Your task to perform on an android device: turn pop-ups off in chrome Image 0: 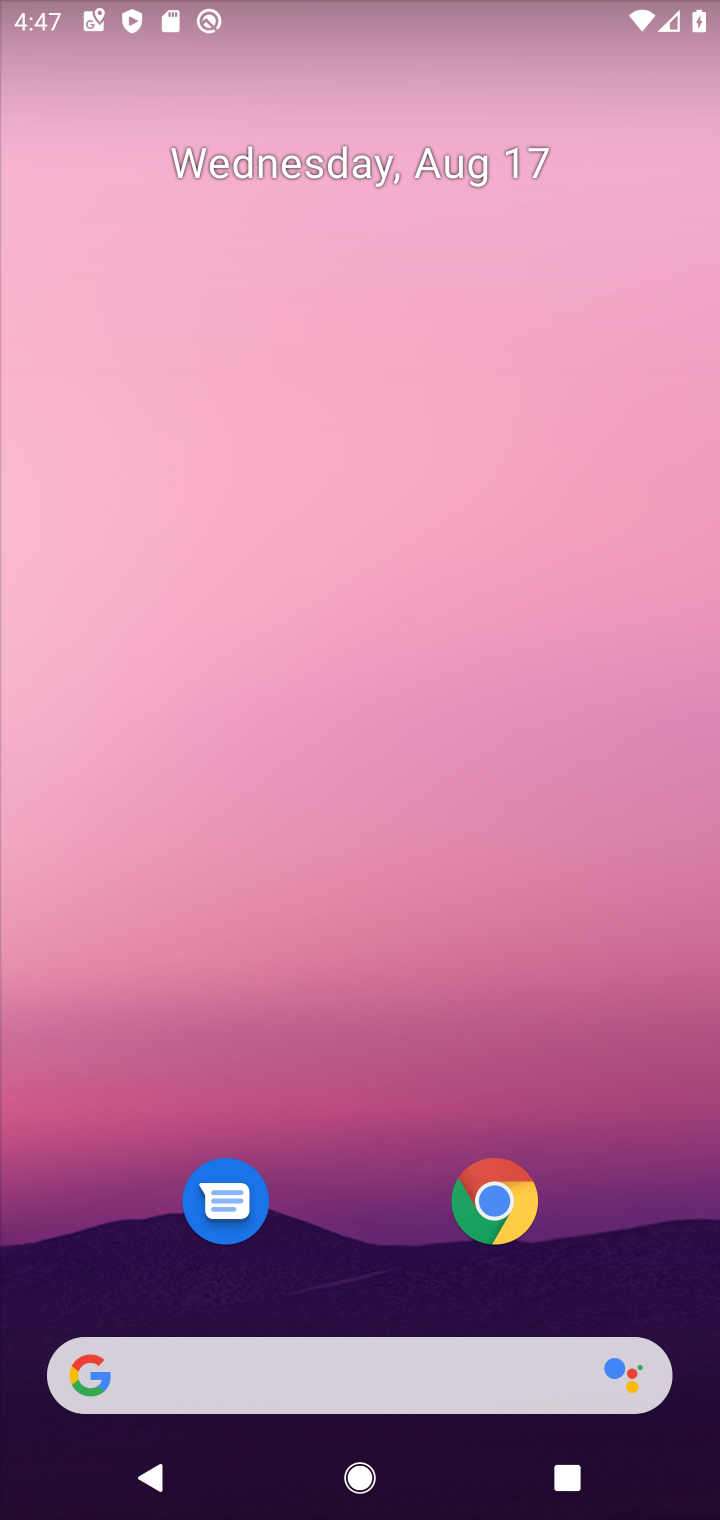
Step 0: press home button
Your task to perform on an android device: turn pop-ups off in chrome Image 1: 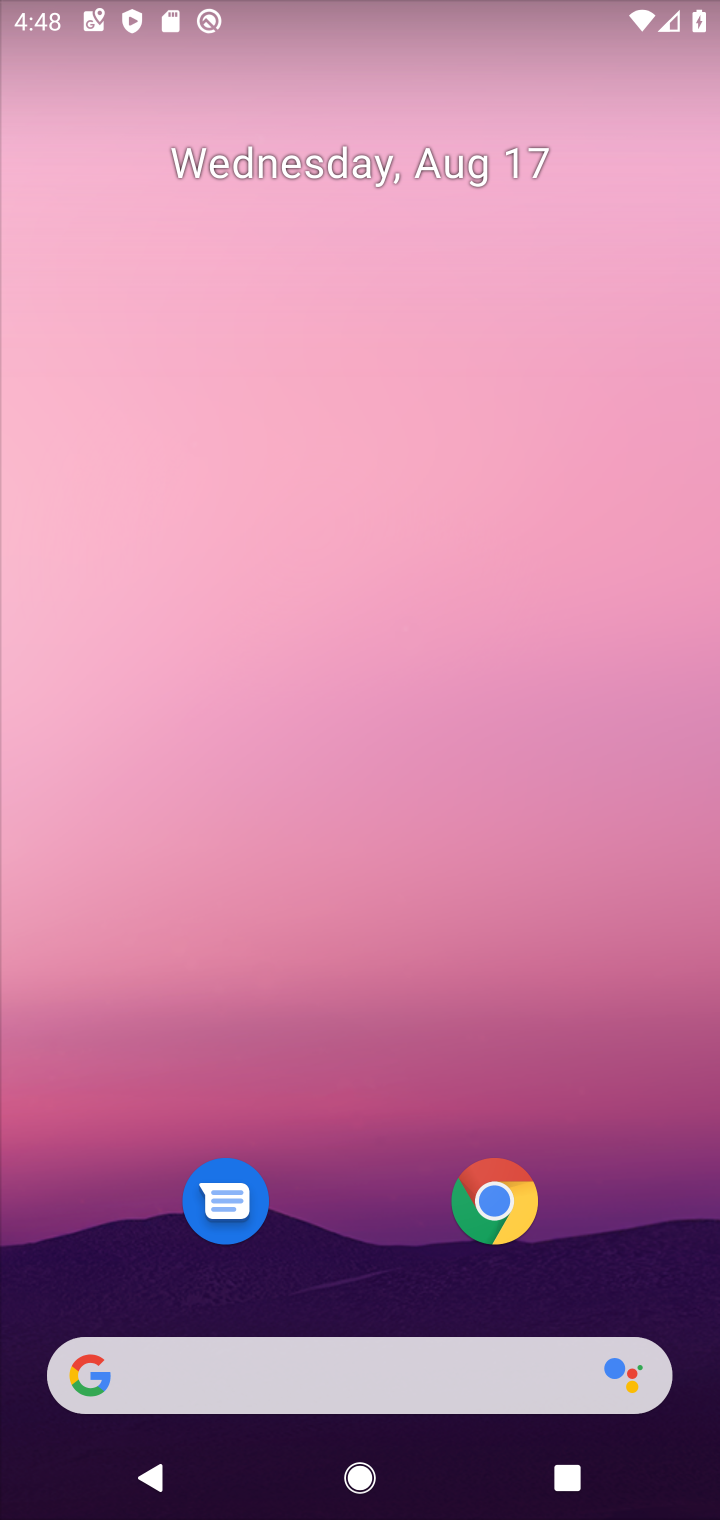
Step 1: click (468, 1213)
Your task to perform on an android device: turn pop-ups off in chrome Image 2: 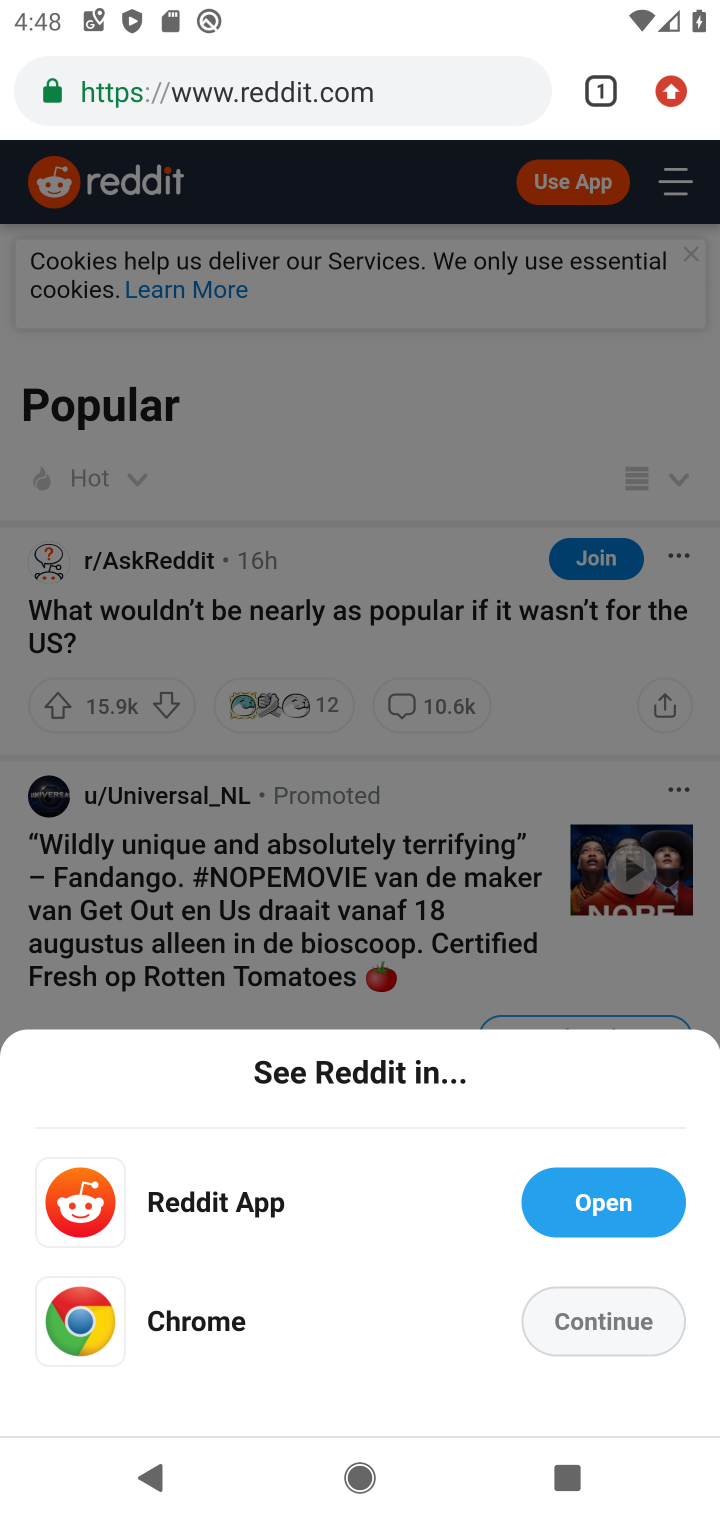
Step 2: drag from (679, 88) to (351, 1213)
Your task to perform on an android device: turn pop-ups off in chrome Image 3: 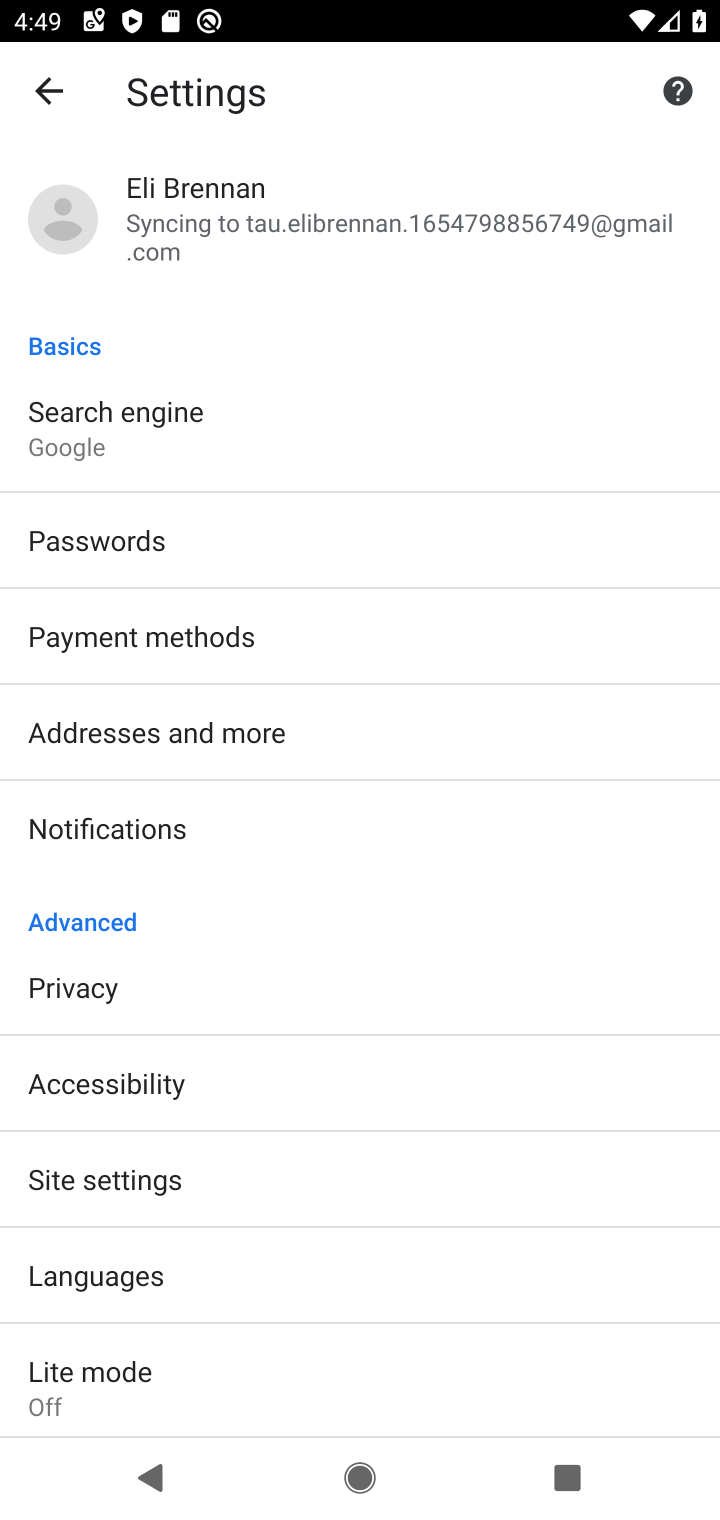
Step 3: click (100, 1187)
Your task to perform on an android device: turn pop-ups off in chrome Image 4: 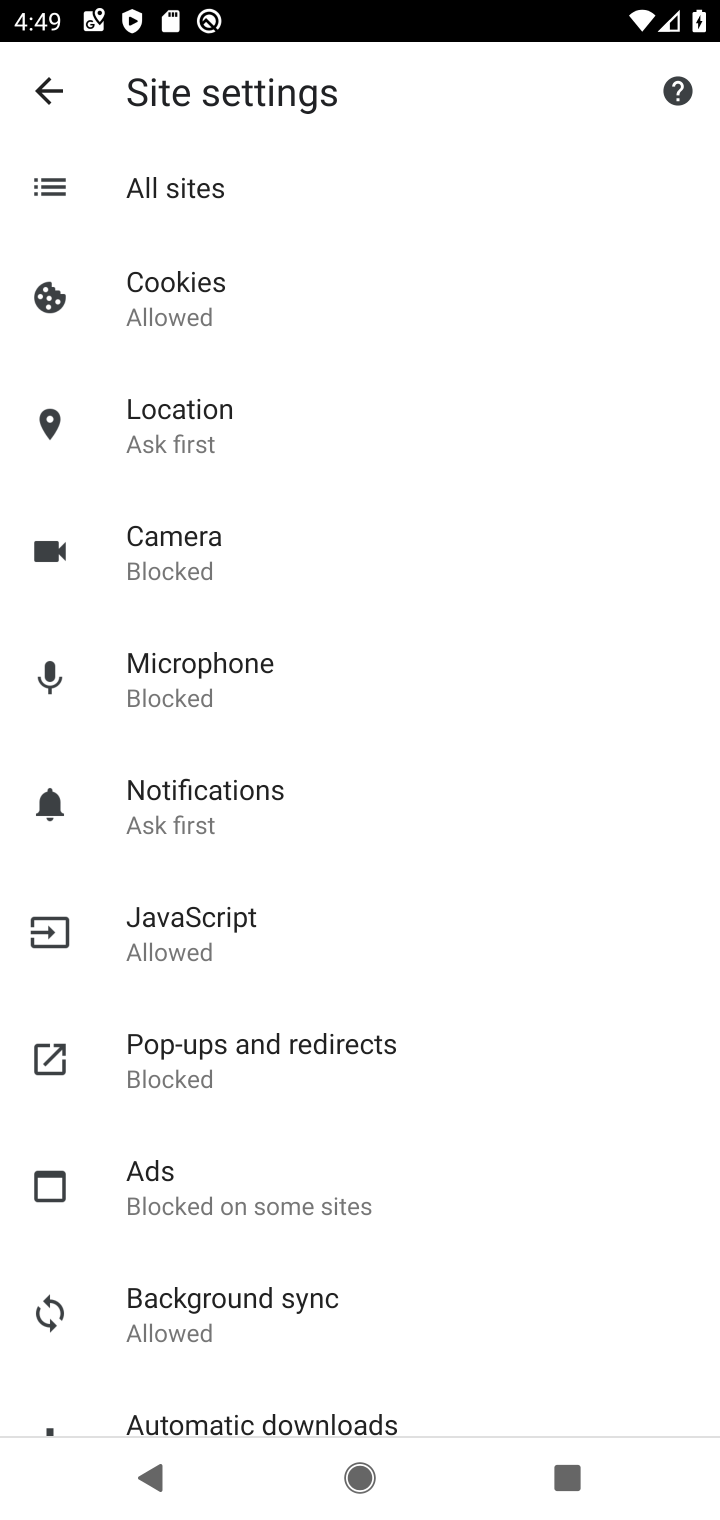
Step 4: click (214, 1060)
Your task to perform on an android device: turn pop-ups off in chrome Image 5: 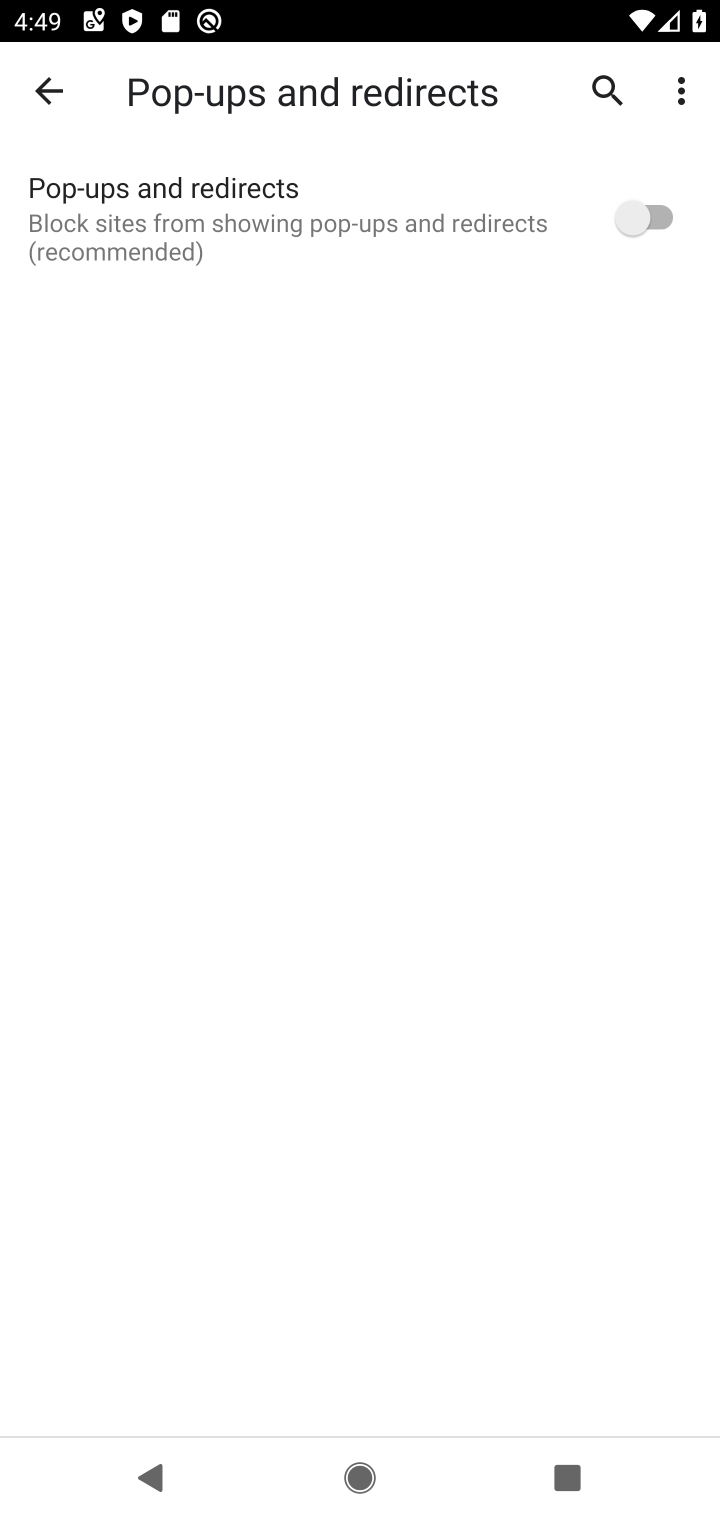
Step 5: task complete